Your task to perform on an android device: turn on translation in the chrome app Image 0: 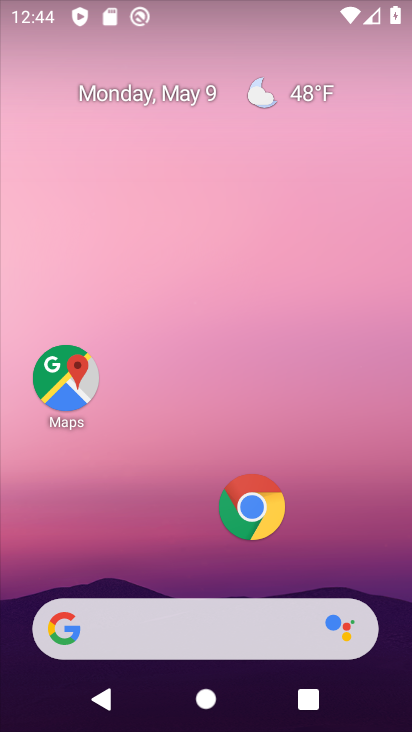
Step 0: click (254, 505)
Your task to perform on an android device: turn on translation in the chrome app Image 1: 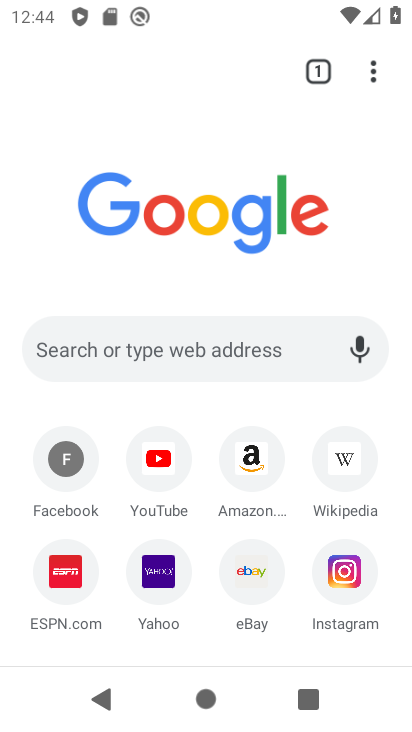
Step 1: click (363, 76)
Your task to perform on an android device: turn on translation in the chrome app Image 2: 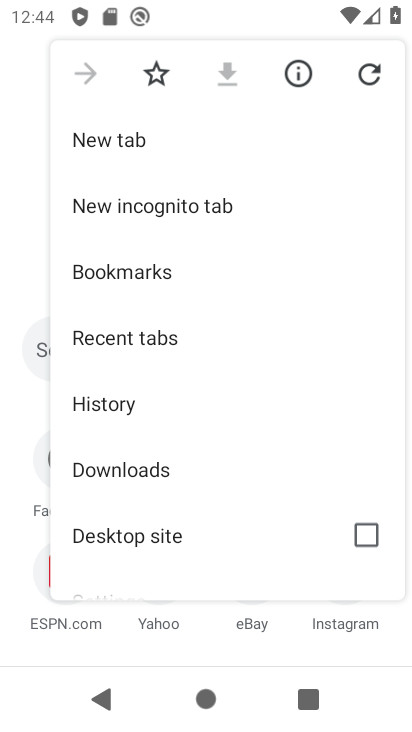
Step 2: drag from (245, 572) to (223, 249)
Your task to perform on an android device: turn on translation in the chrome app Image 3: 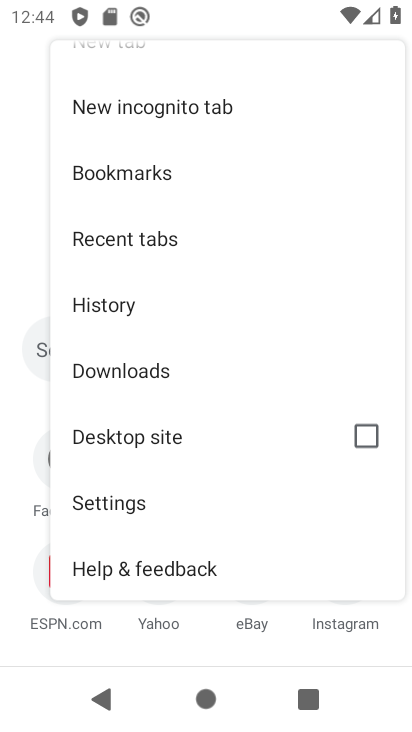
Step 3: click (147, 496)
Your task to perform on an android device: turn on translation in the chrome app Image 4: 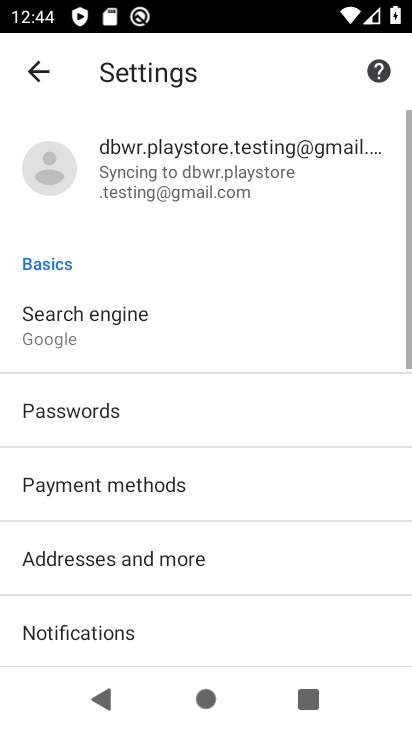
Step 4: drag from (247, 527) to (266, 125)
Your task to perform on an android device: turn on translation in the chrome app Image 5: 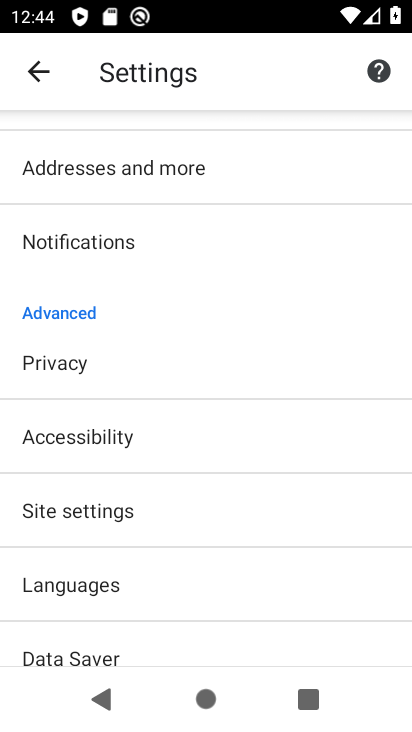
Step 5: click (136, 578)
Your task to perform on an android device: turn on translation in the chrome app Image 6: 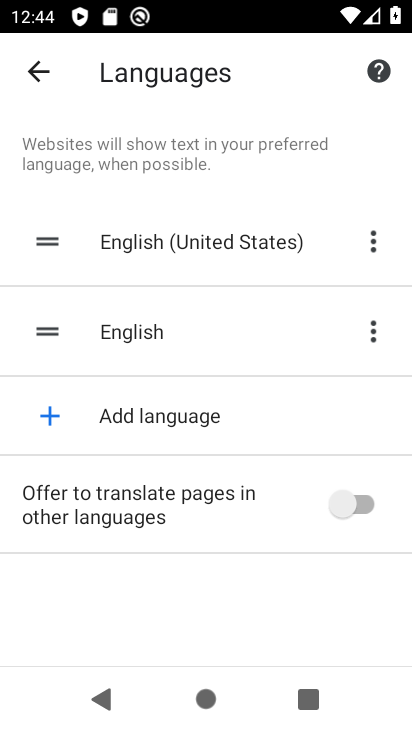
Step 6: click (342, 506)
Your task to perform on an android device: turn on translation in the chrome app Image 7: 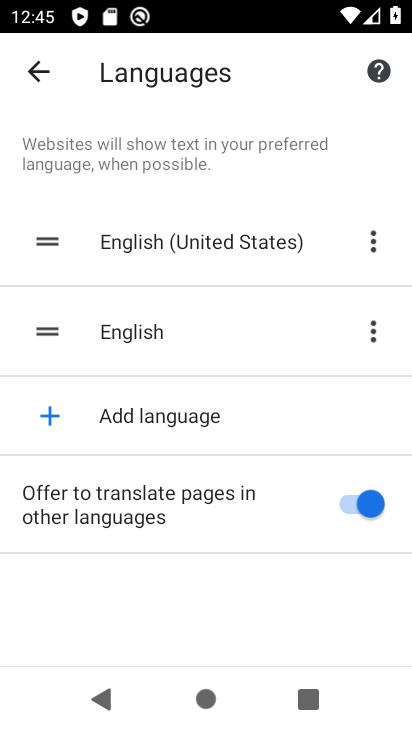
Step 7: task complete